Your task to perform on an android device: allow notifications from all sites in the chrome app Image 0: 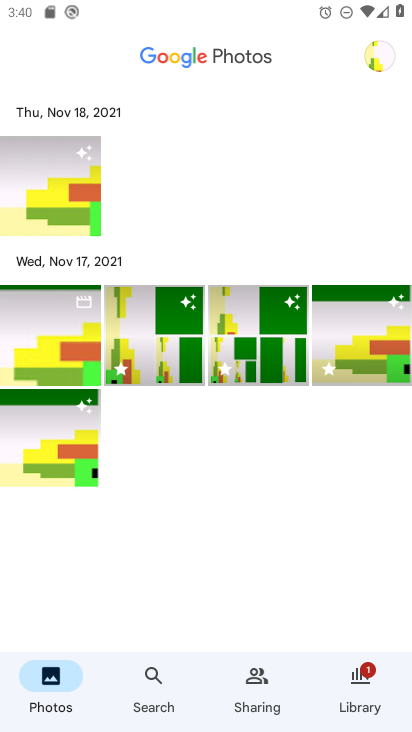
Step 0: press home button
Your task to perform on an android device: allow notifications from all sites in the chrome app Image 1: 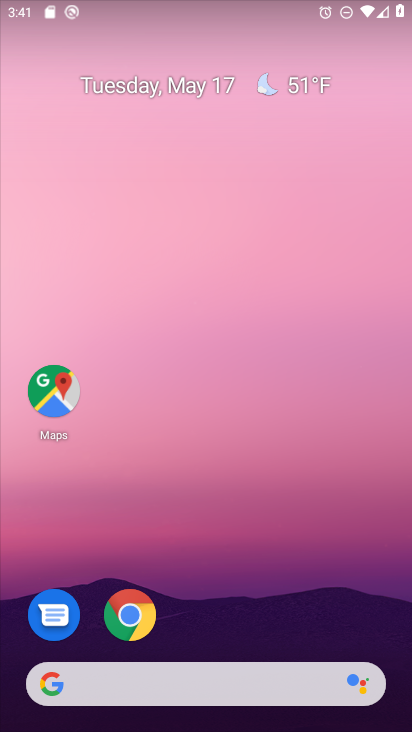
Step 1: click (130, 610)
Your task to perform on an android device: allow notifications from all sites in the chrome app Image 2: 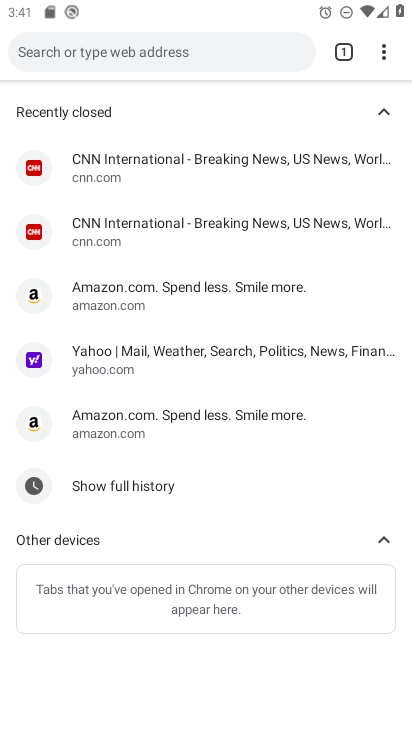
Step 2: click (381, 47)
Your task to perform on an android device: allow notifications from all sites in the chrome app Image 3: 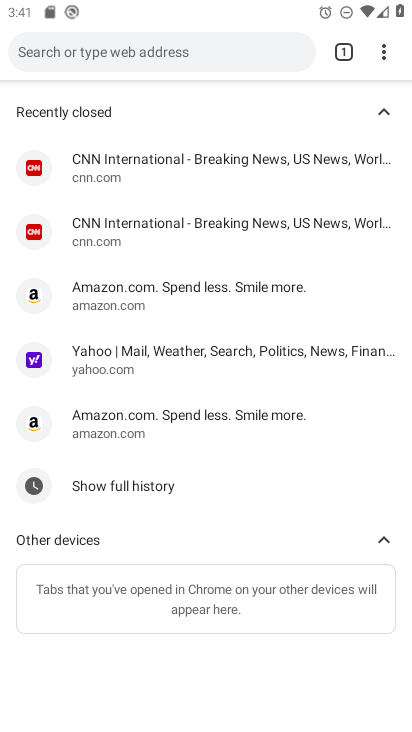
Step 3: click (379, 55)
Your task to perform on an android device: allow notifications from all sites in the chrome app Image 4: 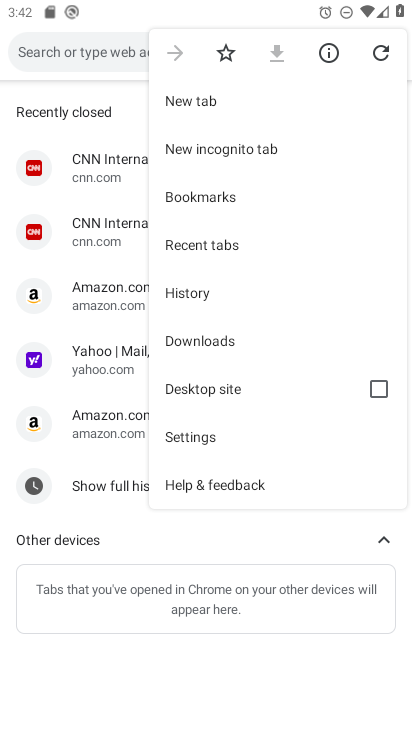
Step 4: click (224, 436)
Your task to perform on an android device: allow notifications from all sites in the chrome app Image 5: 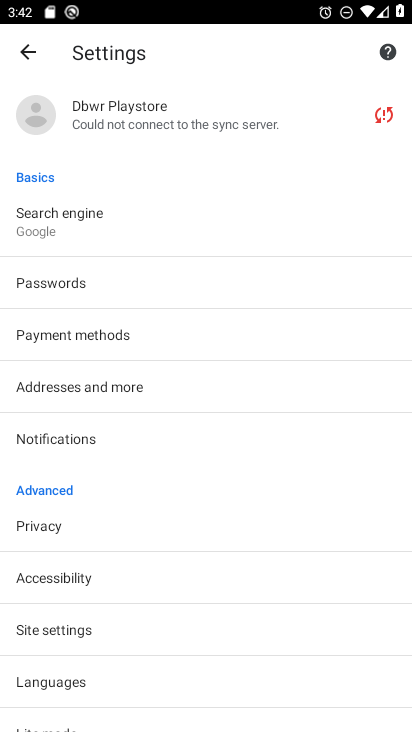
Step 5: click (104, 433)
Your task to perform on an android device: allow notifications from all sites in the chrome app Image 6: 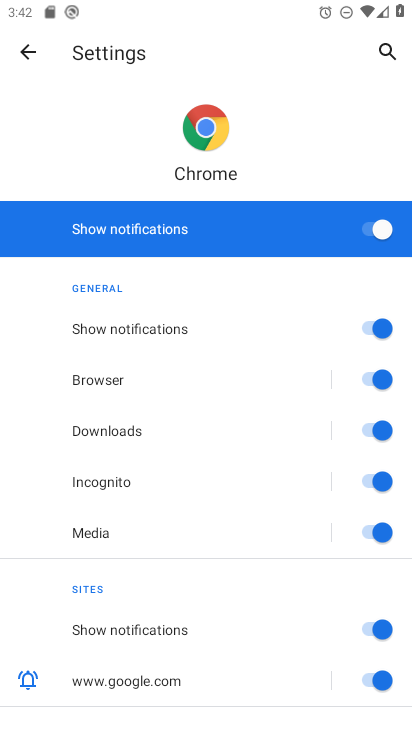
Step 6: task complete